Your task to perform on an android device: Go to Amazon Image 0: 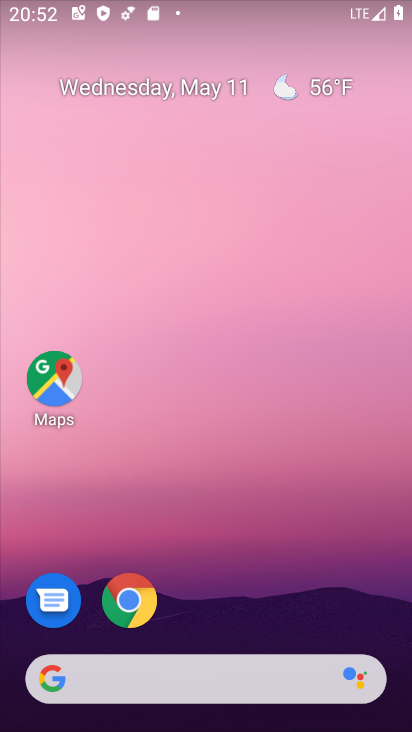
Step 0: drag from (259, 517) to (276, 19)
Your task to perform on an android device: Go to Amazon Image 1: 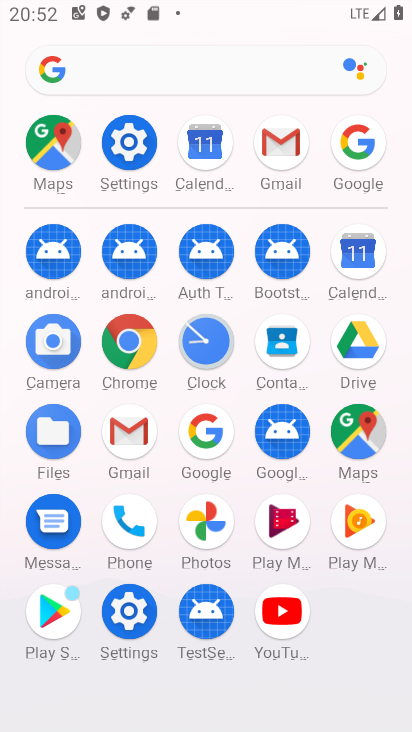
Step 1: click (355, 142)
Your task to perform on an android device: Go to Amazon Image 2: 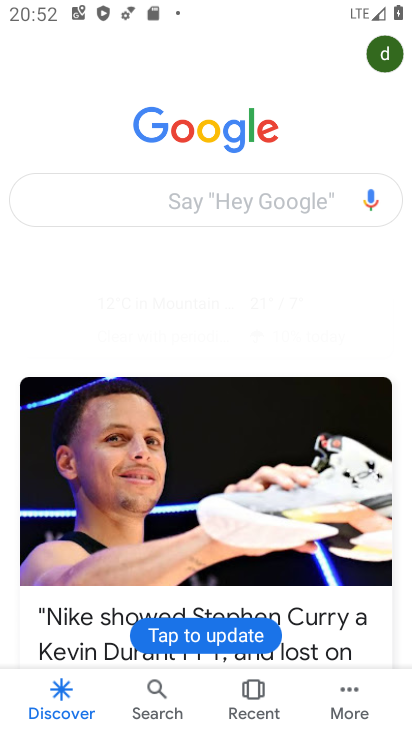
Step 2: click (254, 193)
Your task to perform on an android device: Go to Amazon Image 3: 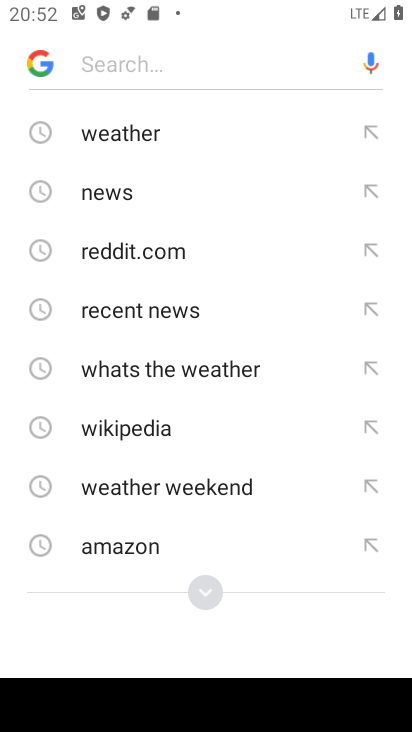
Step 3: click (131, 549)
Your task to perform on an android device: Go to Amazon Image 4: 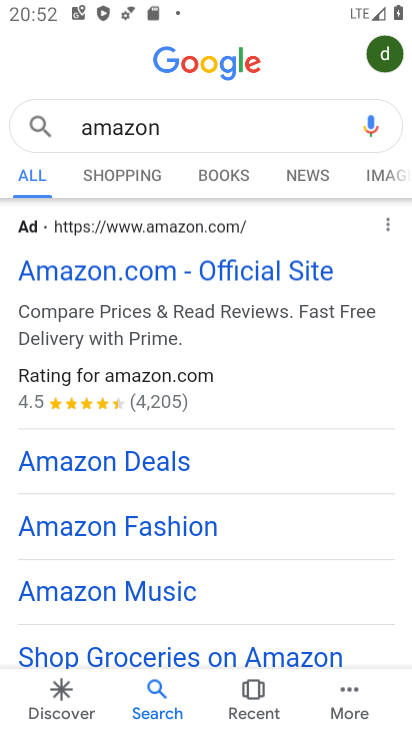
Step 4: click (134, 278)
Your task to perform on an android device: Go to Amazon Image 5: 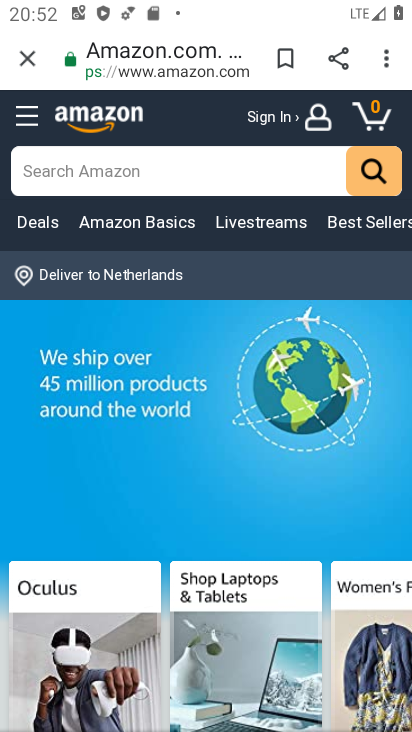
Step 5: task complete